Your task to perform on an android device: turn on data saver in the chrome app Image 0: 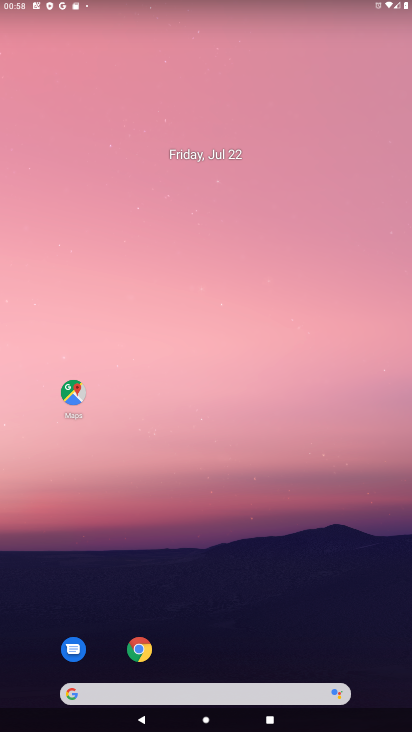
Step 0: drag from (294, 575) to (311, 75)
Your task to perform on an android device: turn on data saver in the chrome app Image 1: 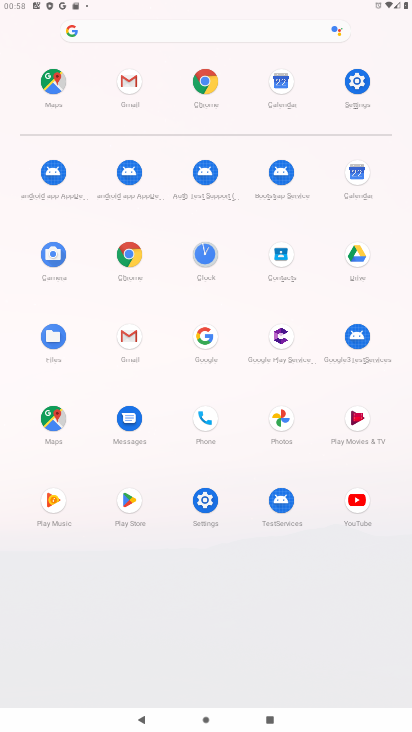
Step 1: click (134, 252)
Your task to perform on an android device: turn on data saver in the chrome app Image 2: 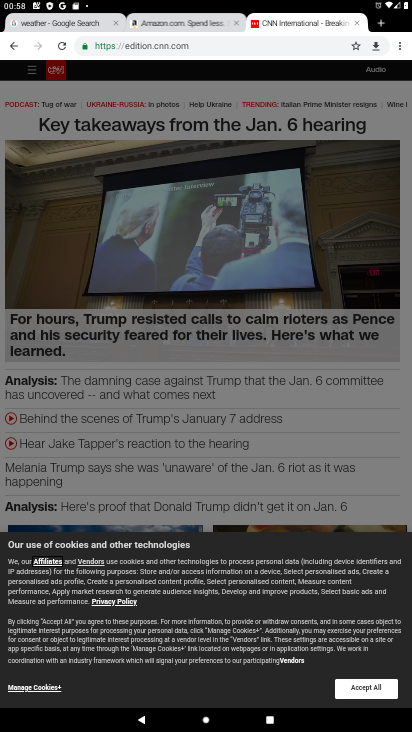
Step 2: drag from (395, 34) to (316, 310)
Your task to perform on an android device: turn on data saver in the chrome app Image 3: 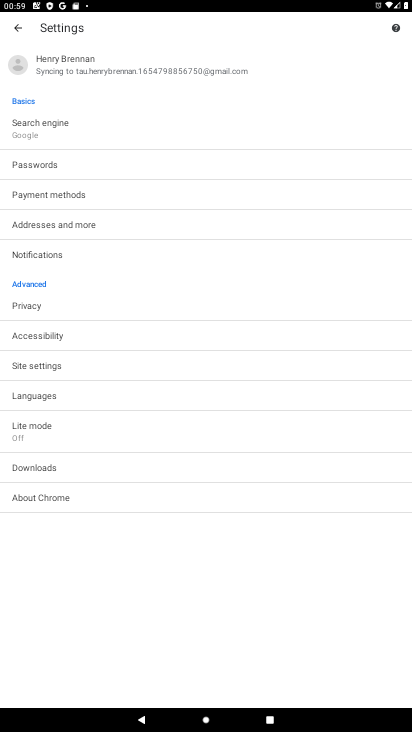
Step 3: click (46, 425)
Your task to perform on an android device: turn on data saver in the chrome app Image 4: 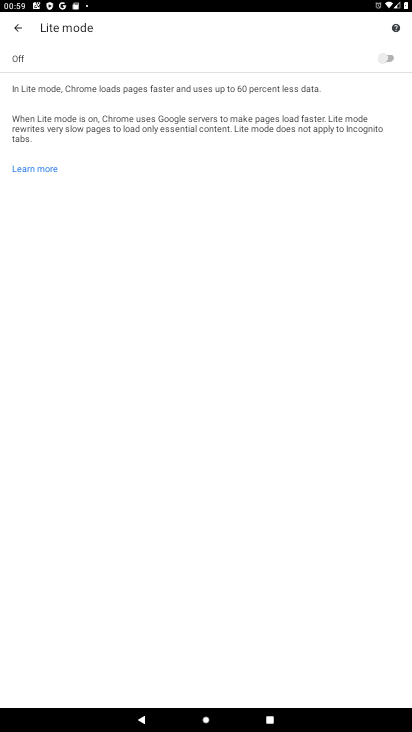
Step 4: click (382, 61)
Your task to perform on an android device: turn on data saver in the chrome app Image 5: 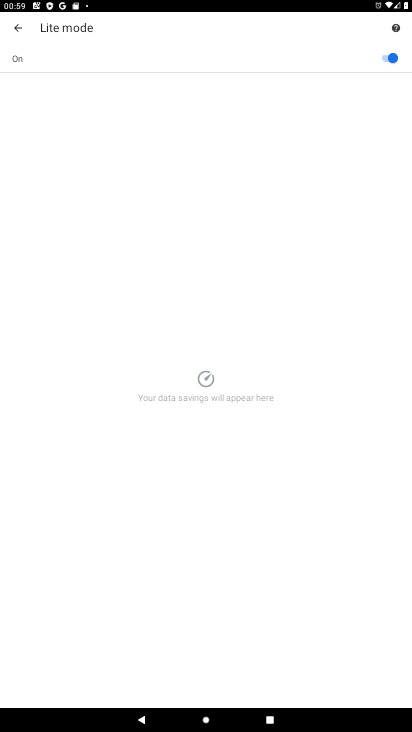
Step 5: task complete